Your task to perform on an android device: Open Google Image 0: 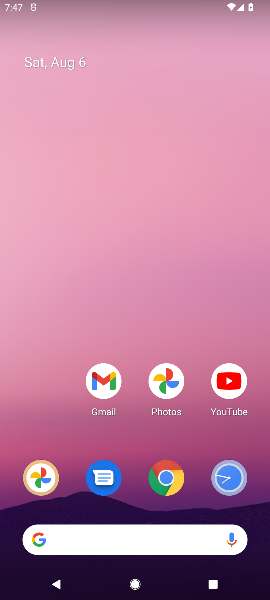
Step 0: press home button
Your task to perform on an android device: Open Google Image 1: 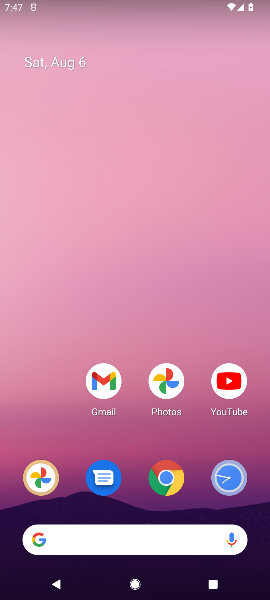
Step 1: drag from (122, 316) to (123, 10)
Your task to perform on an android device: Open Google Image 2: 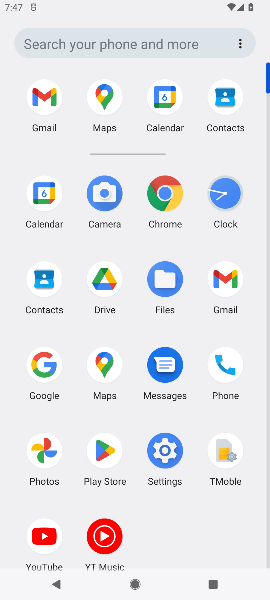
Step 2: click (39, 362)
Your task to perform on an android device: Open Google Image 3: 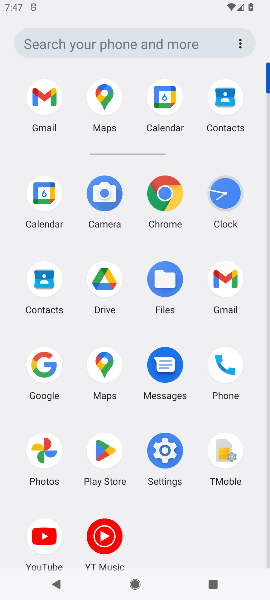
Step 3: click (48, 356)
Your task to perform on an android device: Open Google Image 4: 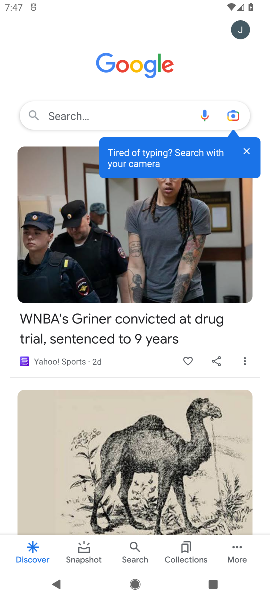
Step 4: task complete